Your task to perform on an android device: Open the phone app and click the voicemail tab. Image 0: 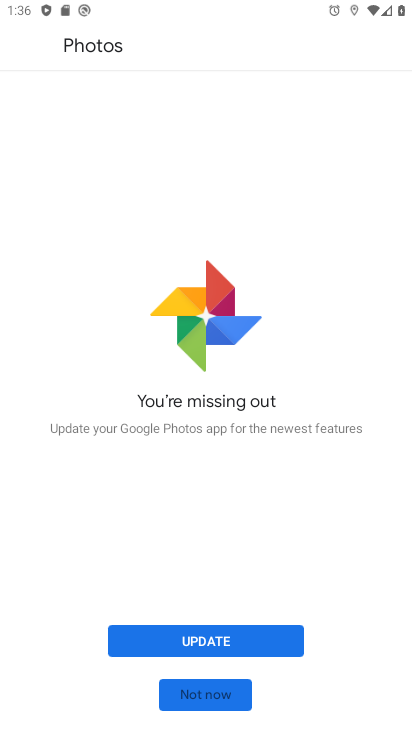
Step 0: press home button
Your task to perform on an android device: Open the phone app and click the voicemail tab. Image 1: 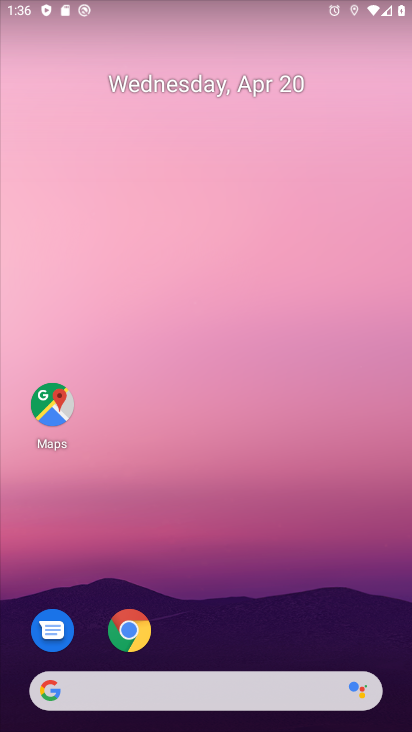
Step 1: drag from (174, 573) to (115, 116)
Your task to perform on an android device: Open the phone app and click the voicemail tab. Image 2: 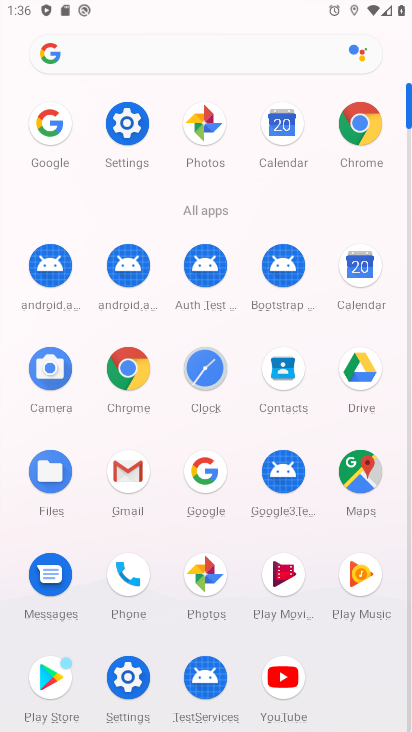
Step 2: click (124, 570)
Your task to perform on an android device: Open the phone app and click the voicemail tab. Image 3: 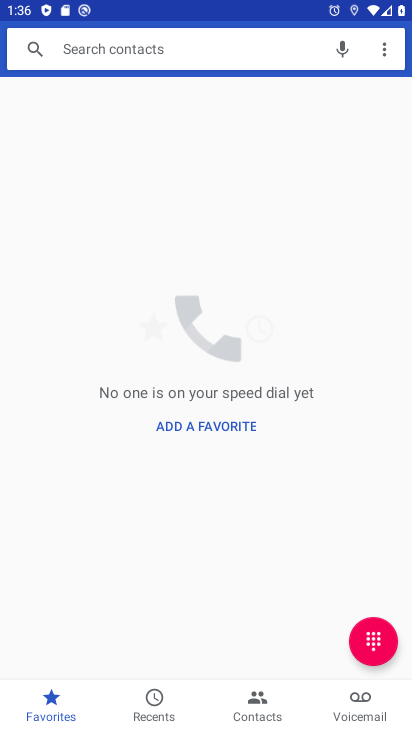
Step 3: click (351, 708)
Your task to perform on an android device: Open the phone app and click the voicemail tab. Image 4: 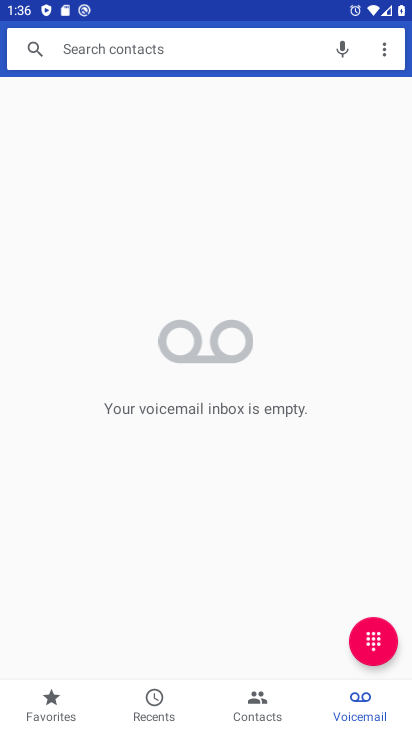
Step 4: task complete